Your task to perform on an android device: check google app version Image 0: 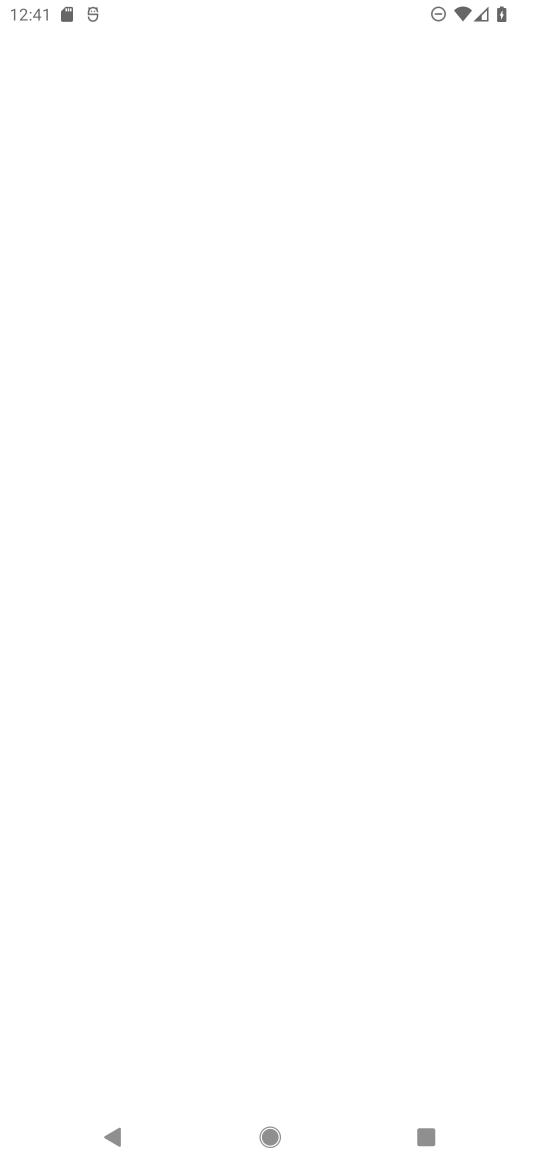
Step 0: press home button
Your task to perform on an android device: check google app version Image 1: 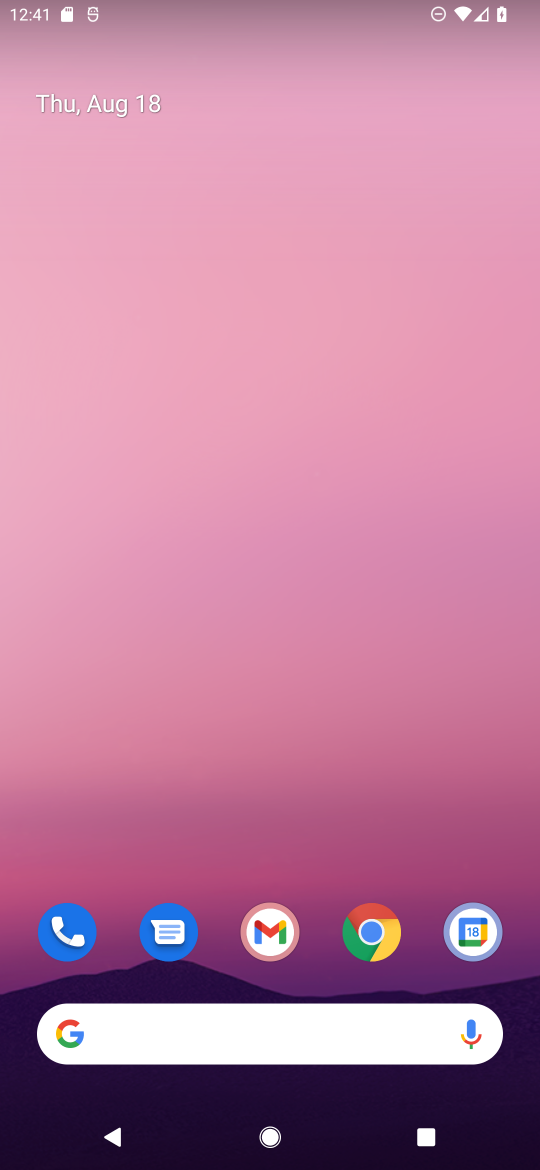
Step 1: drag from (302, 819) to (232, 108)
Your task to perform on an android device: check google app version Image 2: 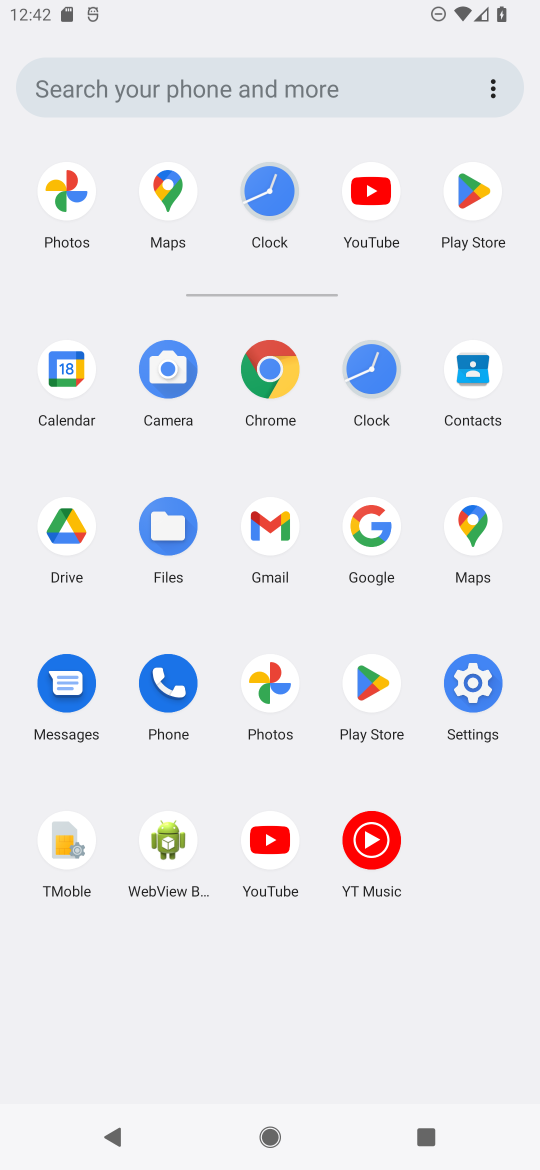
Step 2: click (377, 534)
Your task to perform on an android device: check google app version Image 3: 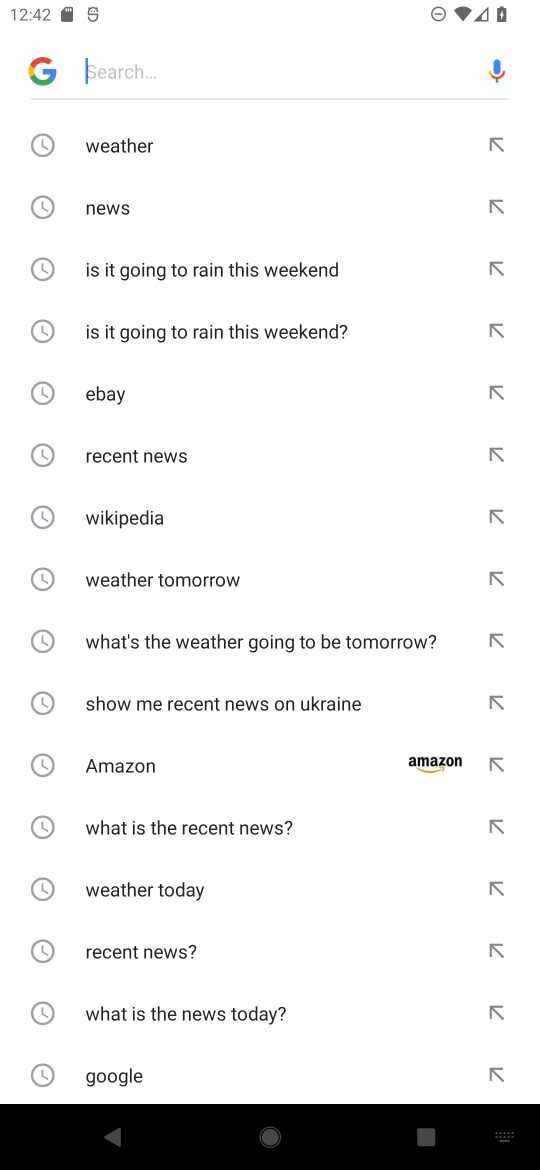
Step 3: click (55, 81)
Your task to perform on an android device: check google app version Image 4: 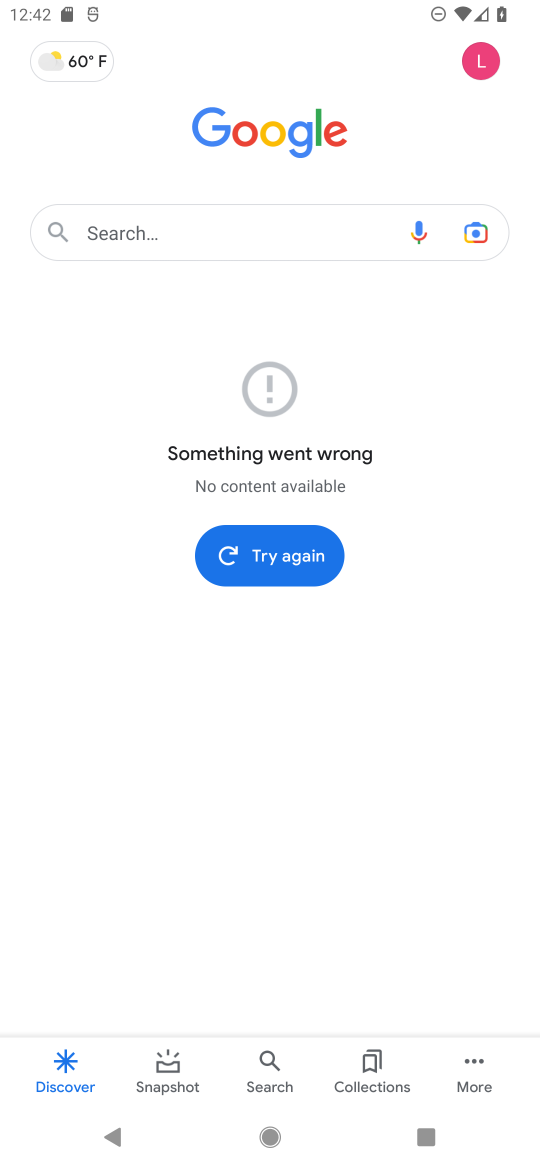
Step 4: click (474, 1061)
Your task to perform on an android device: check google app version Image 5: 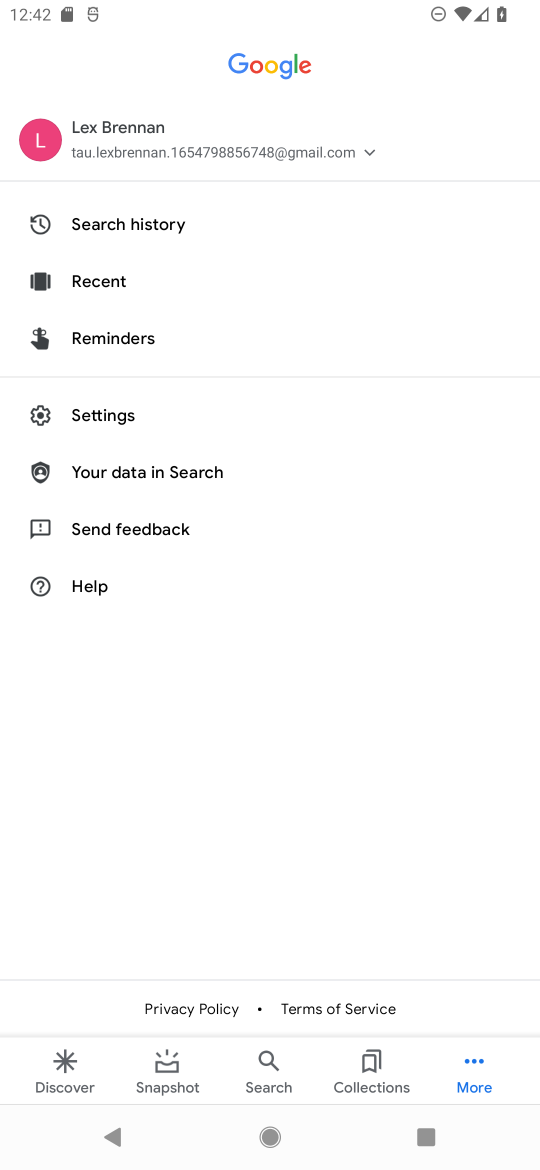
Step 5: click (102, 412)
Your task to perform on an android device: check google app version Image 6: 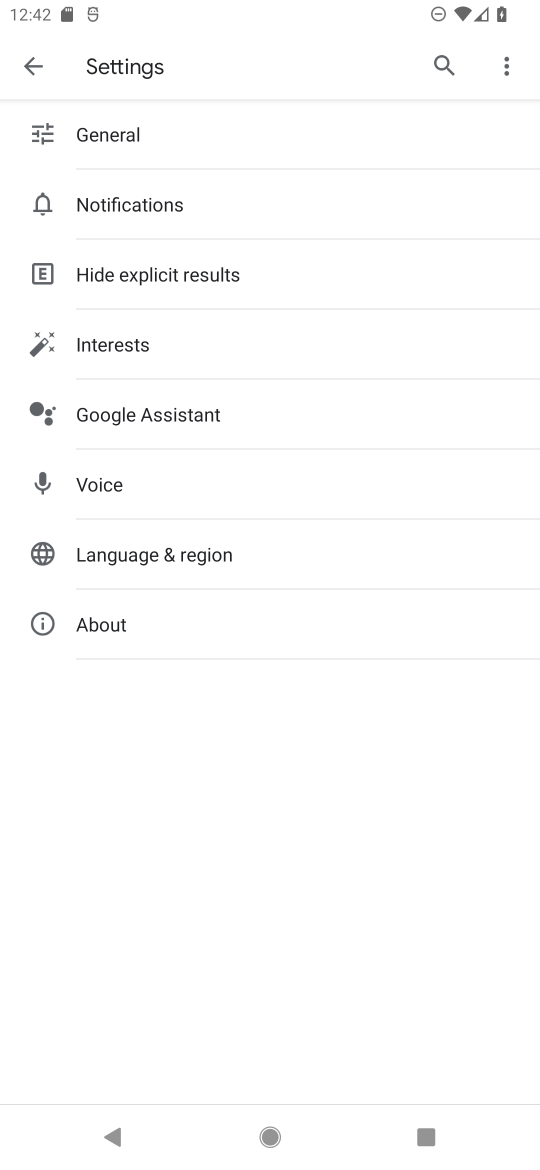
Step 6: click (101, 621)
Your task to perform on an android device: check google app version Image 7: 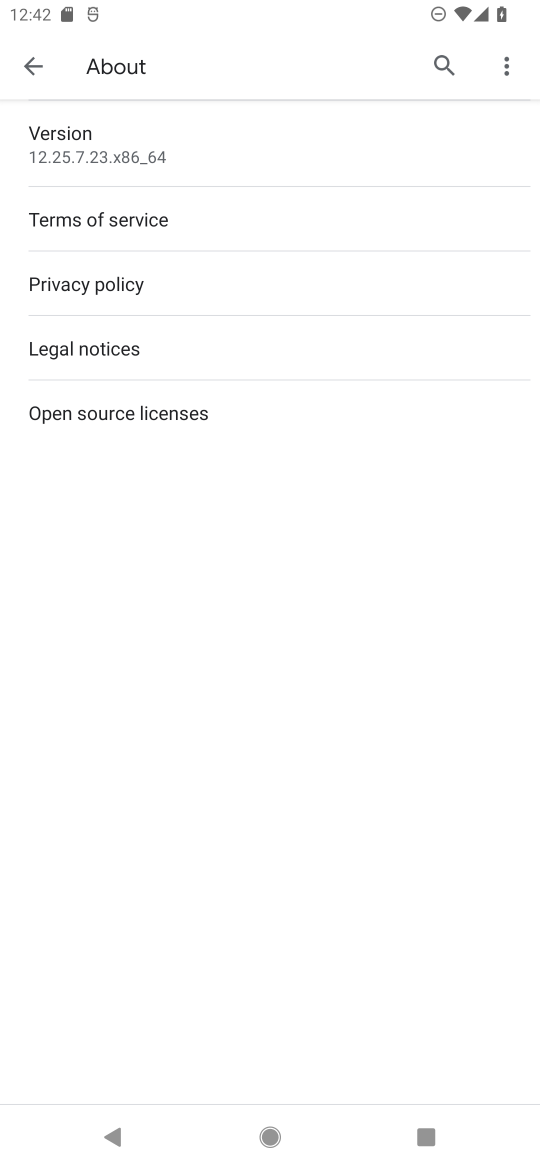
Step 7: task complete